Your task to perform on an android device: Open calendar and show me the fourth week of next month Image 0: 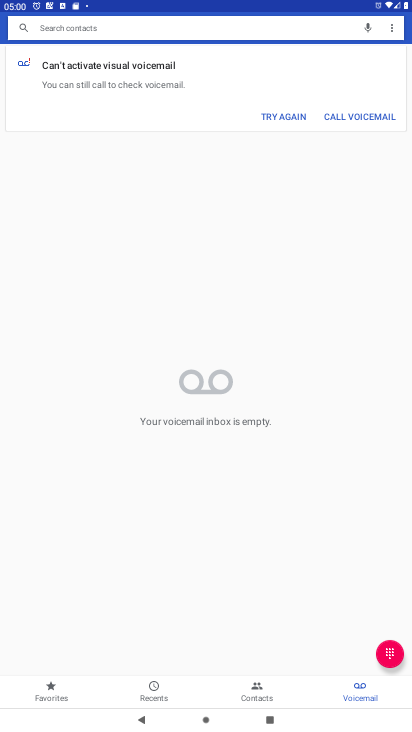
Step 0: press home button
Your task to perform on an android device: Open calendar and show me the fourth week of next month Image 1: 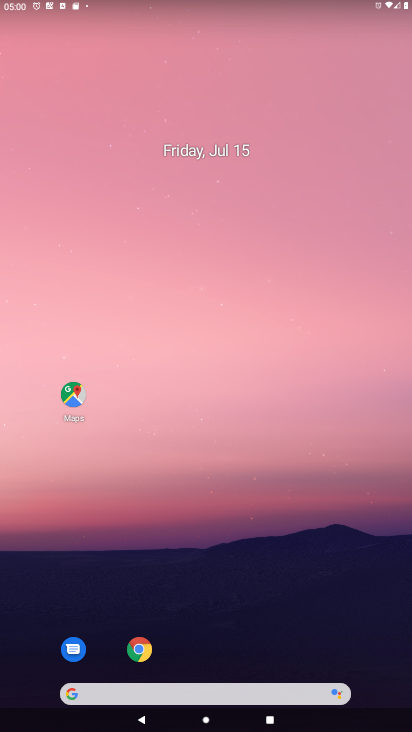
Step 1: drag from (369, 647) to (290, 71)
Your task to perform on an android device: Open calendar and show me the fourth week of next month Image 2: 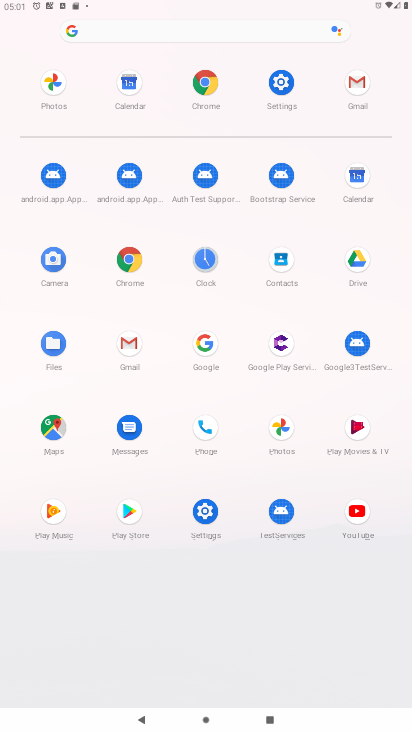
Step 2: click (358, 175)
Your task to perform on an android device: Open calendar and show me the fourth week of next month Image 3: 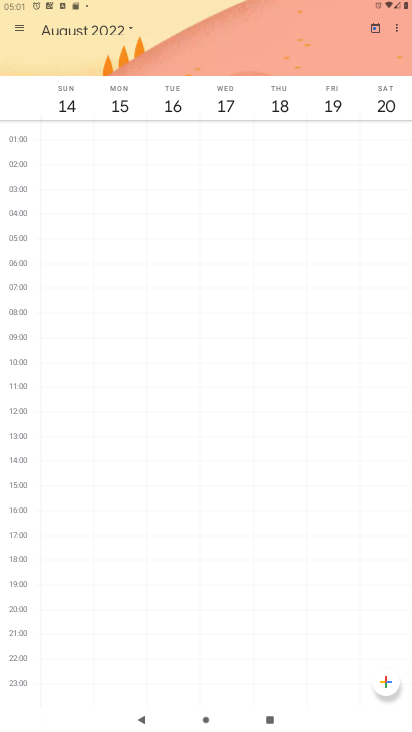
Step 3: click (130, 24)
Your task to perform on an android device: Open calendar and show me the fourth week of next month Image 4: 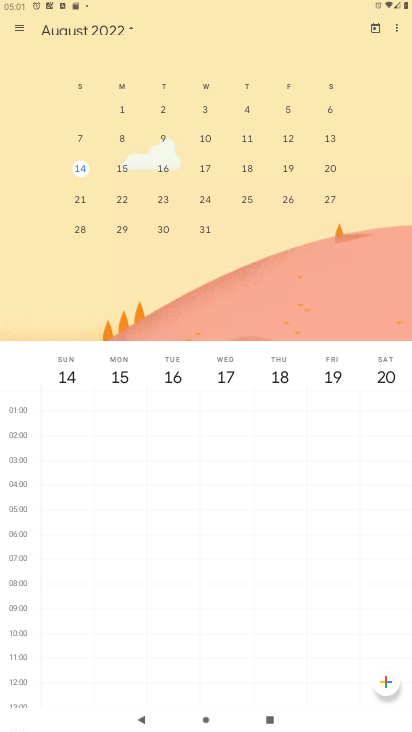
Step 4: click (81, 230)
Your task to perform on an android device: Open calendar and show me the fourth week of next month Image 5: 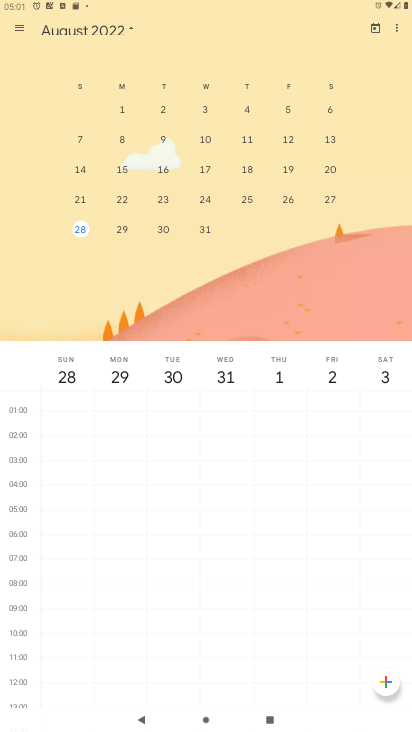
Step 5: task complete